Your task to perform on an android device: Go to Maps Image 0: 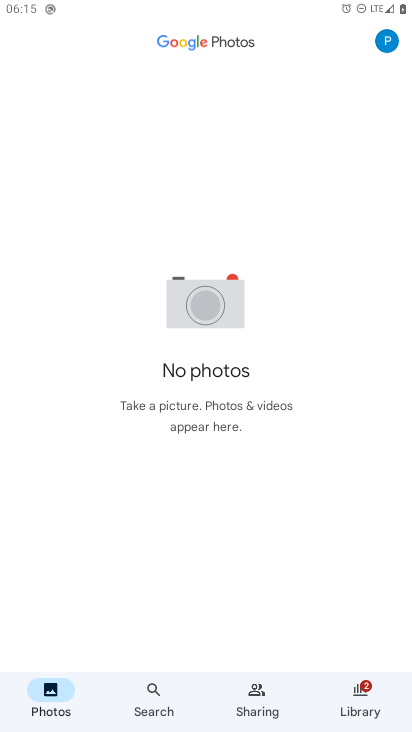
Step 0: press home button
Your task to perform on an android device: Go to Maps Image 1: 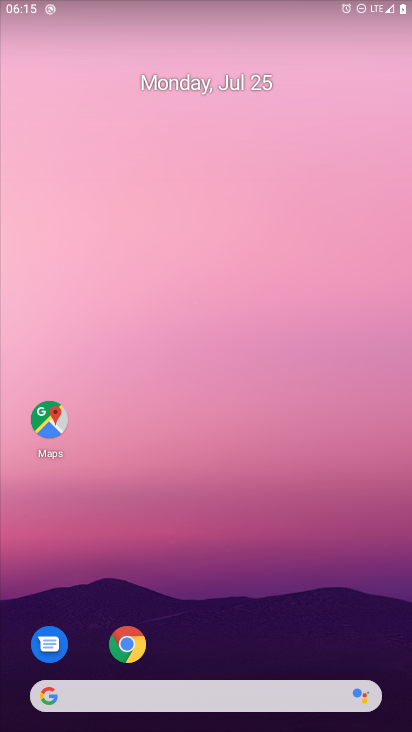
Step 1: drag from (259, 601) to (256, 8)
Your task to perform on an android device: Go to Maps Image 2: 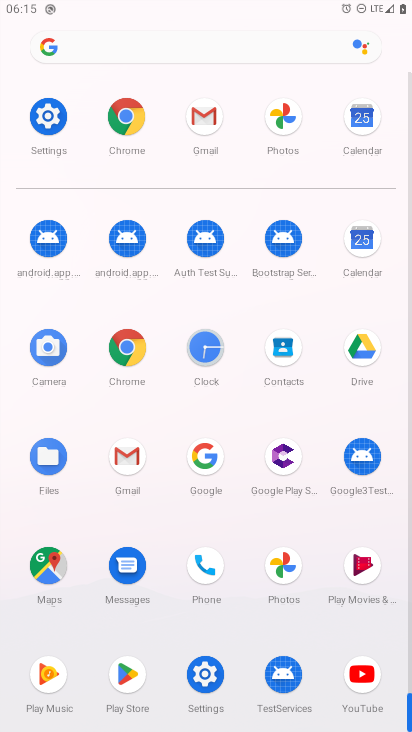
Step 2: click (41, 567)
Your task to perform on an android device: Go to Maps Image 3: 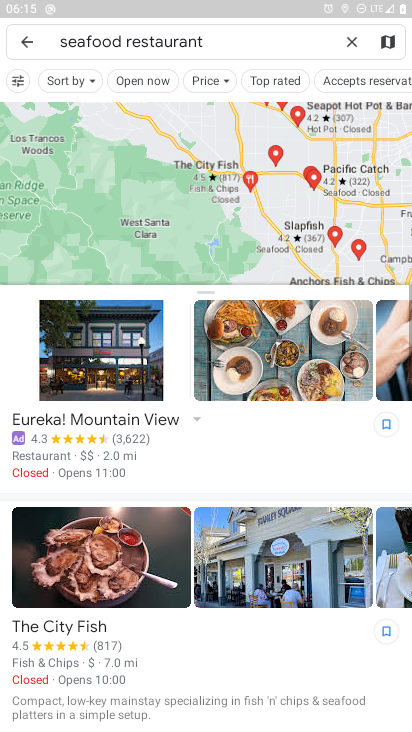
Step 3: click (27, 39)
Your task to perform on an android device: Go to Maps Image 4: 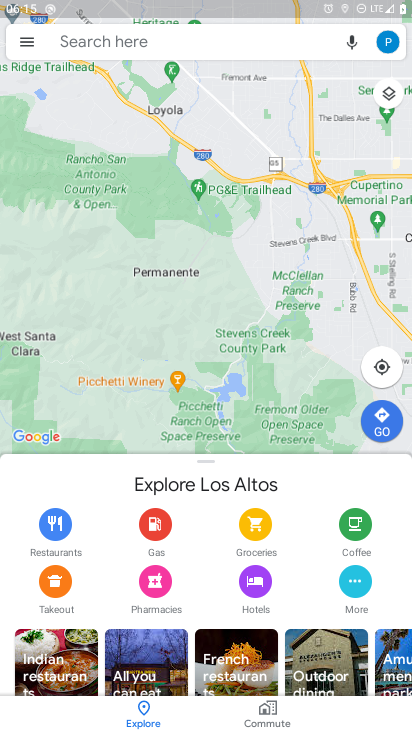
Step 4: task complete